Your task to perform on an android device: What's on my calendar today? Image 0: 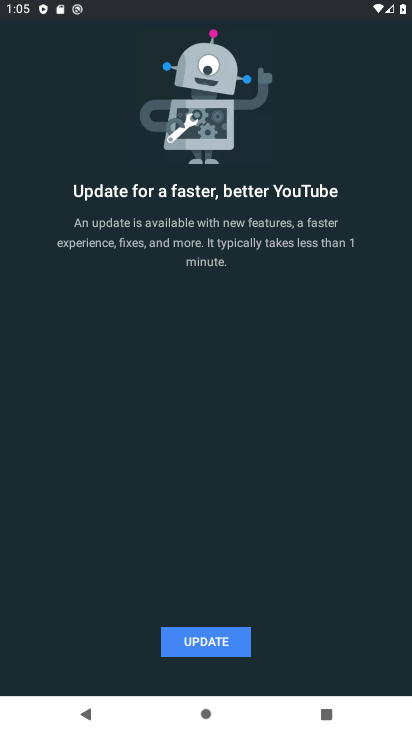
Step 0: press back button
Your task to perform on an android device: What's on my calendar today? Image 1: 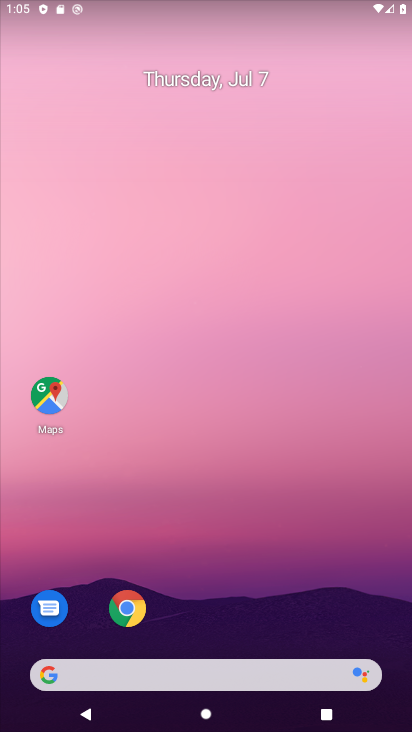
Step 1: drag from (247, 519) to (335, 3)
Your task to perform on an android device: What's on my calendar today? Image 2: 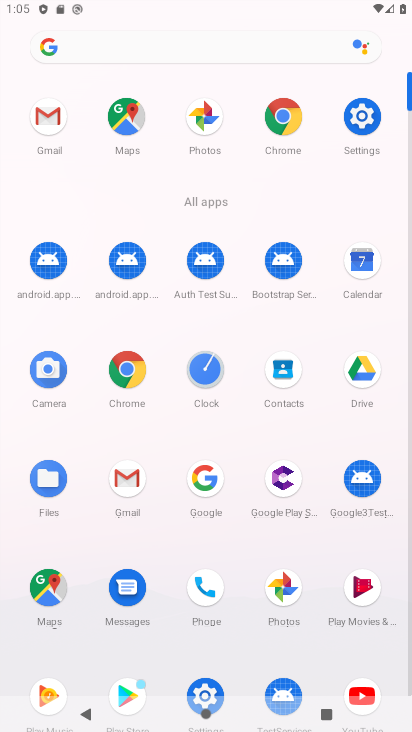
Step 2: click (364, 275)
Your task to perform on an android device: What's on my calendar today? Image 3: 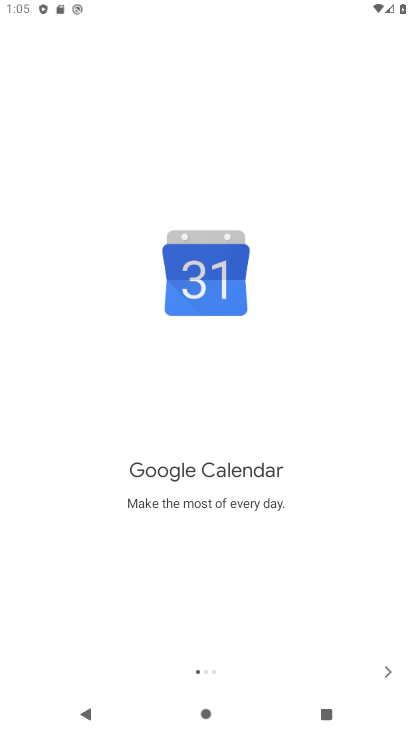
Step 3: click (390, 660)
Your task to perform on an android device: What's on my calendar today? Image 4: 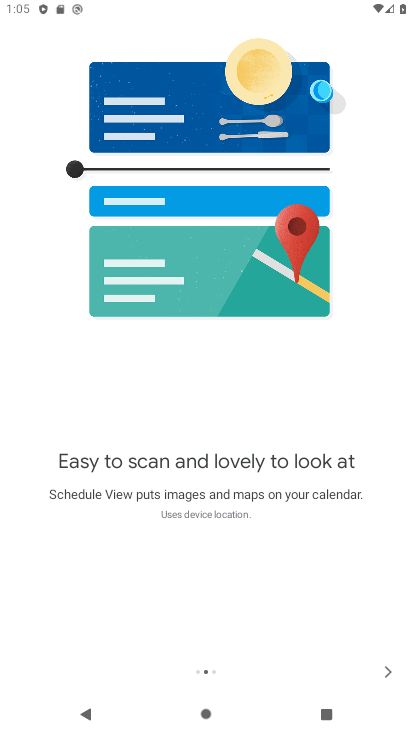
Step 4: click (381, 647)
Your task to perform on an android device: What's on my calendar today? Image 5: 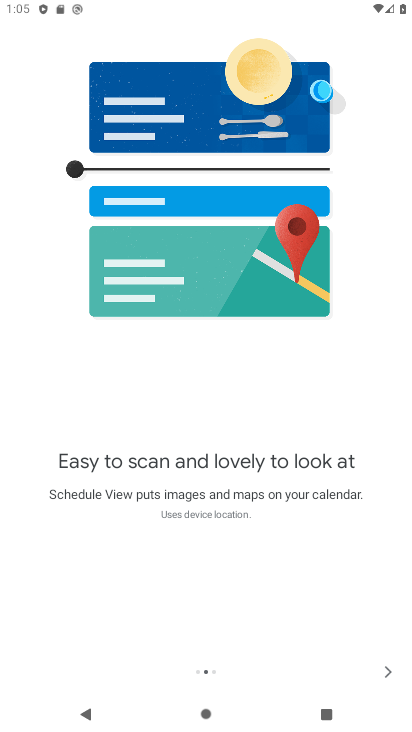
Step 5: click (376, 655)
Your task to perform on an android device: What's on my calendar today? Image 6: 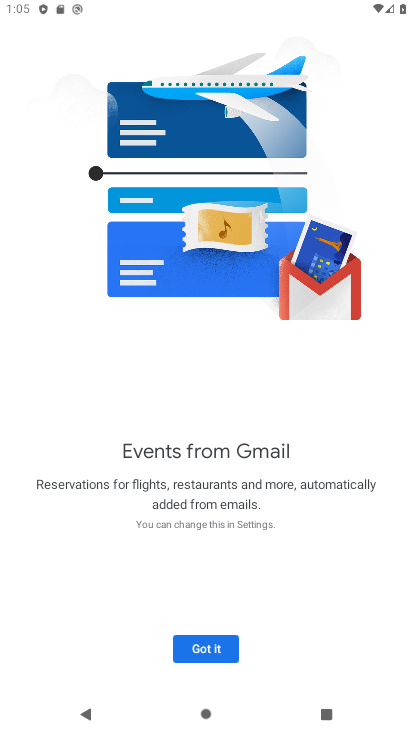
Step 6: click (189, 640)
Your task to perform on an android device: What's on my calendar today? Image 7: 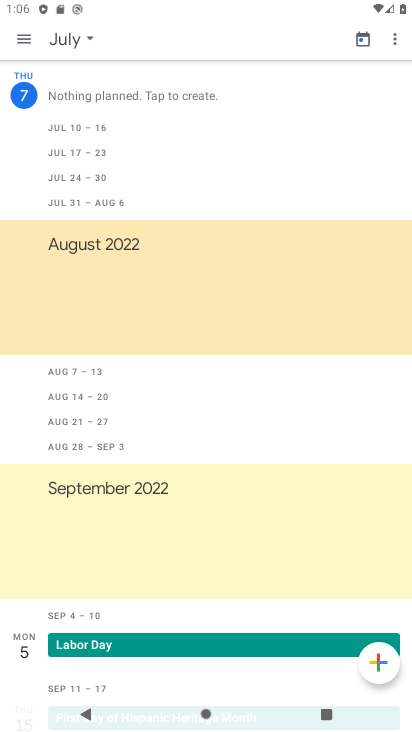
Step 7: task complete